Your task to perform on an android device: Open Wikipedia Image 0: 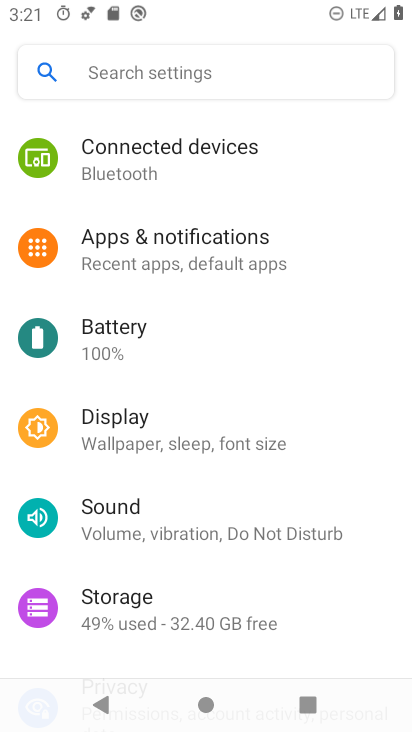
Step 0: press home button
Your task to perform on an android device: Open Wikipedia Image 1: 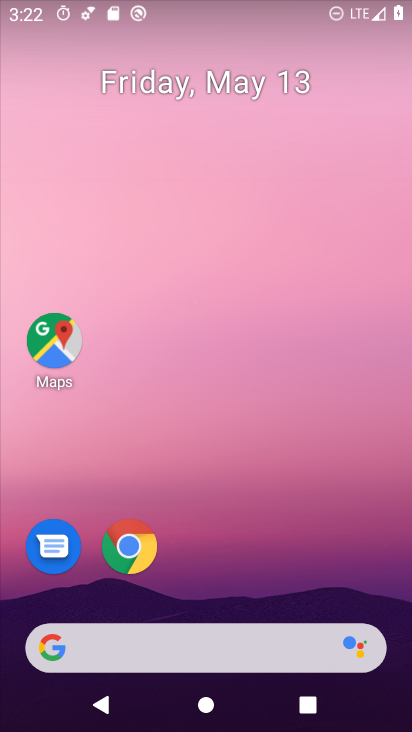
Step 1: click (118, 564)
Your task to perform on an android device: Open Wikipedia Image 2: 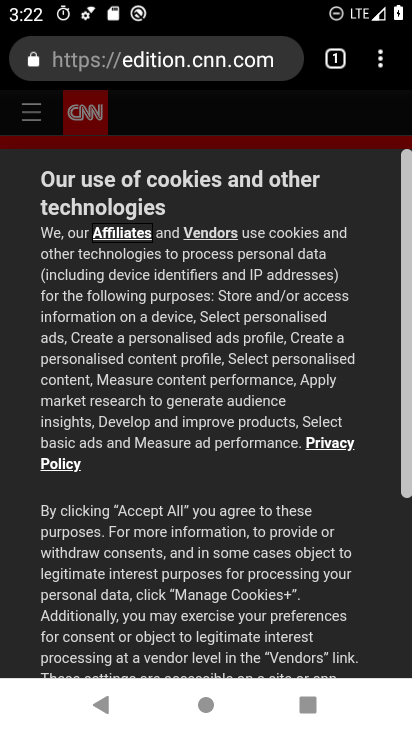
Step 2: click (230, 73)
Your task to perform on an android device: Open Wikipedia Image 3: 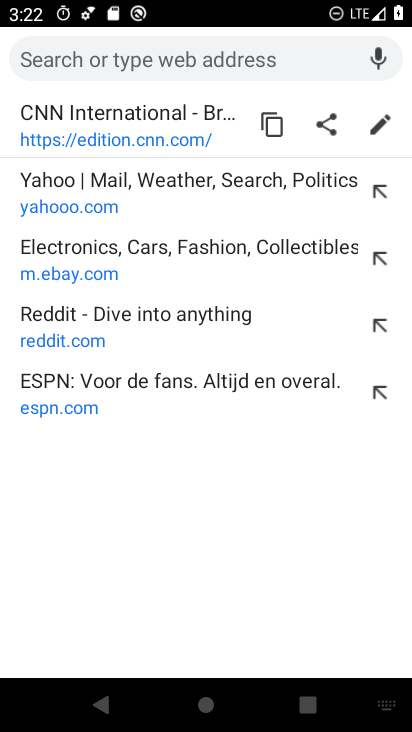
Step 3: type "wikipedia"
Your task to perform on an android device: Open Wikipedia Image 4: 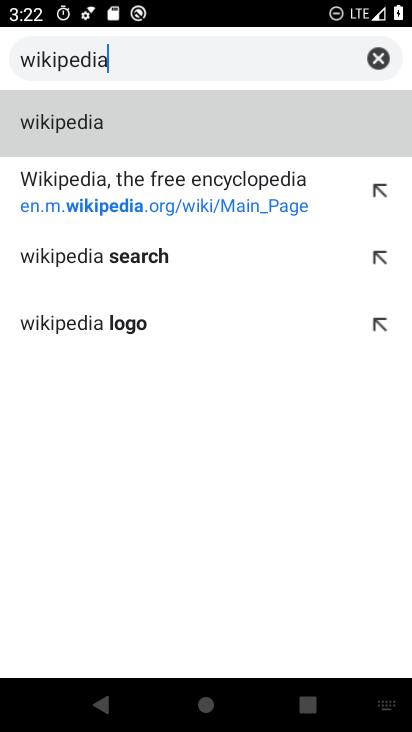
Step 4: click (211, 179)
Your task to perform on an android device: Open Wikipedia Image 5: 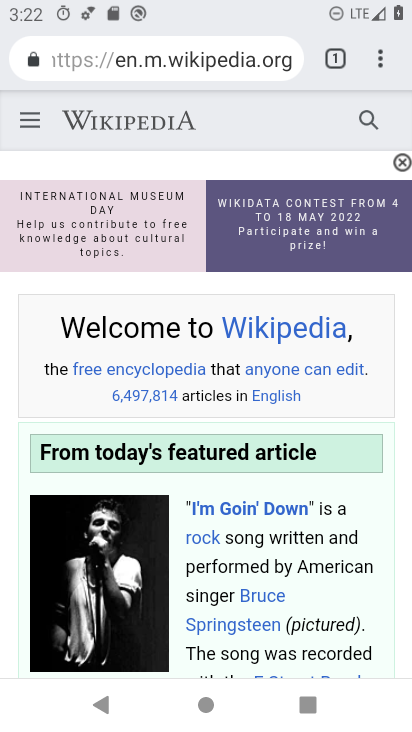
Step 5: task complete